Your task to perform on an android device: Go to battery settings Image 0: 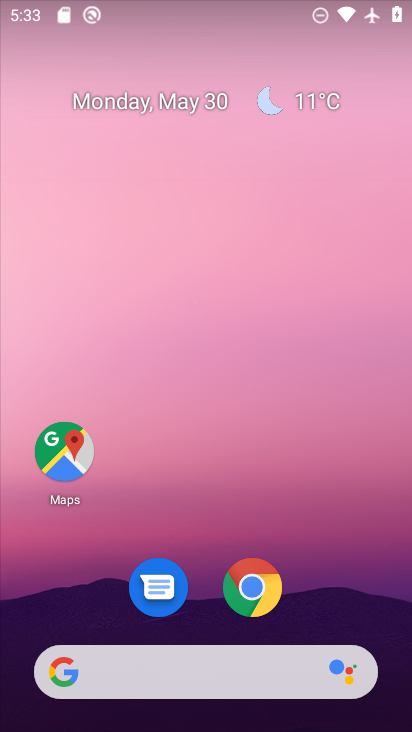
Step 0: drag from (295, 353) to (233, 0)
Your task to perform on an android device: Go to battery settings Image 1: 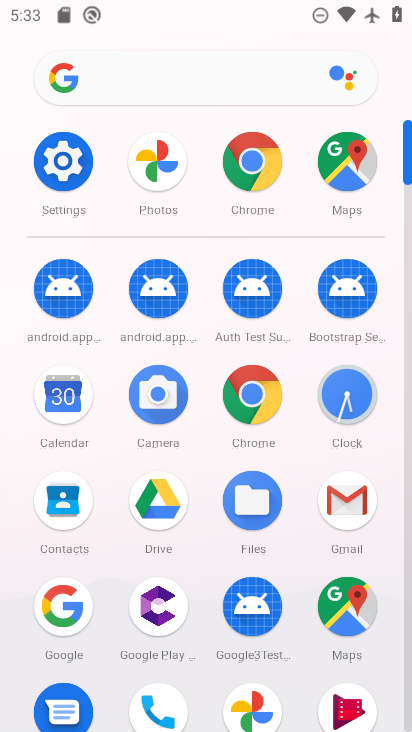
Step 1: drag from (16, 529) to (24, 204)
Your task to perform on an android device: Go to battery settings Image 2: 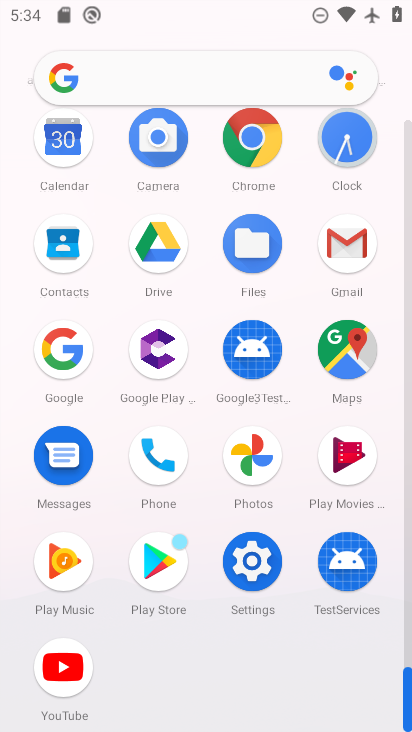
Step 2: click (254, 562)
Your task to perform on an android device: Go to battery settings Image 3: 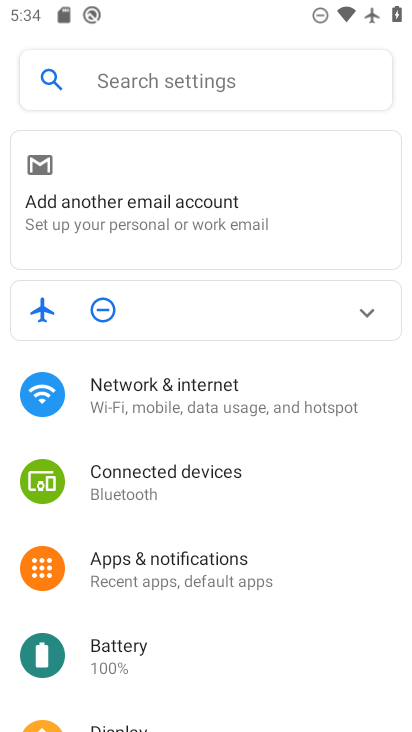
Step 3: drag from (282, 622) to (253, 301)
Your task to perform on an android device: Go to battery settings Image 4: 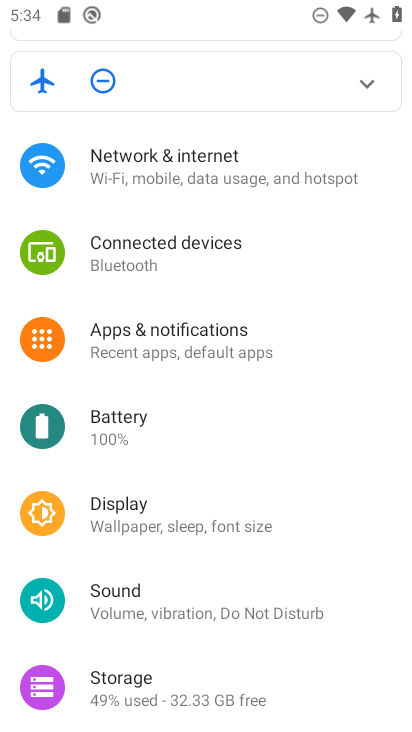
Step 4: click (174, 412)
Your task to perform on an android device: Go to battery settings Image 5: 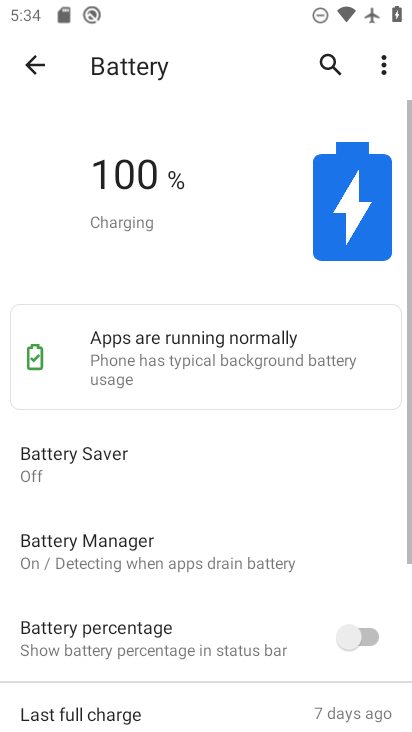
Step 5: task complete